Your task to perform on an android device: Show me popular games on the Play Store Image 0: 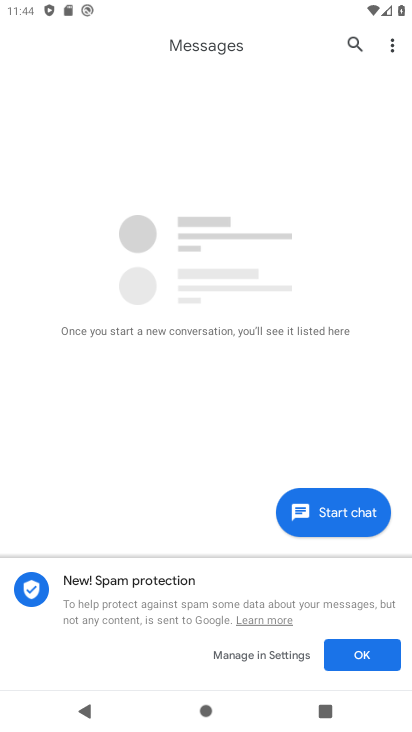
Step 0: press home button
Your task to perform on an android device: Show me popular games on the Play Store Image 1: 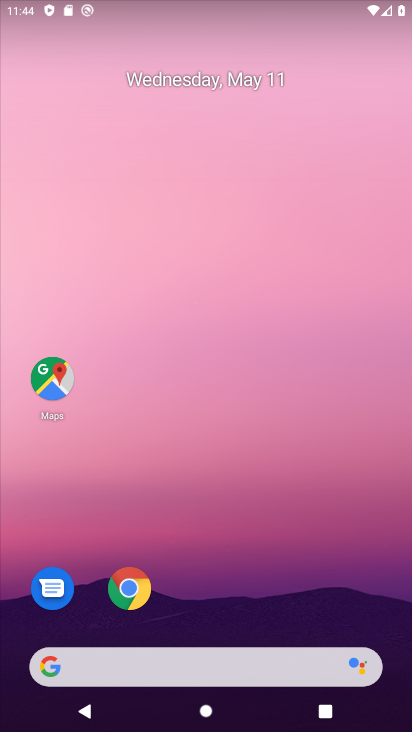
Step 1: drag from (182, 647) to (201, 123)
Your task to perform on an android device: Show me popular games on the Play Store Image 2: 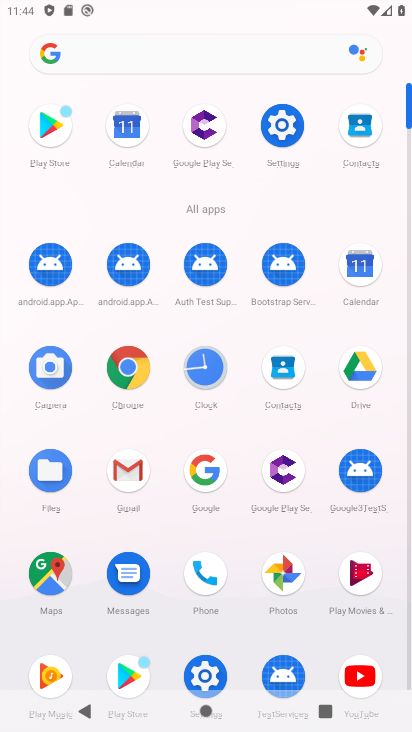
Step 2: click (132, 672)
Your task to perform on an android device: Show me popular games on the Play Store Image 3: 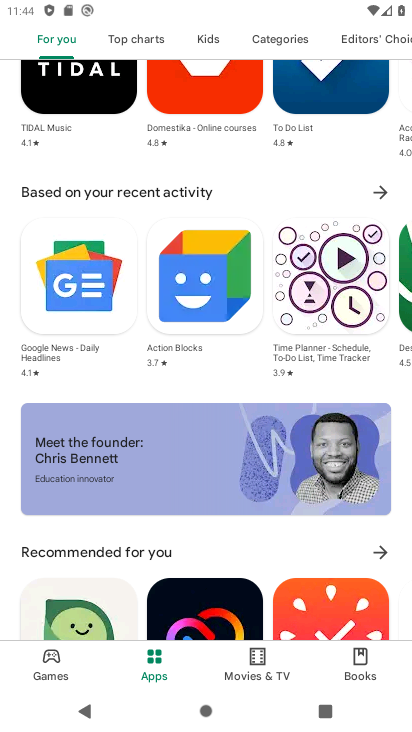
Step 3: drag from (128, 73) to (128, 444)
Your task to perform on an android device: Show me popular games on the Play Store Image 4: 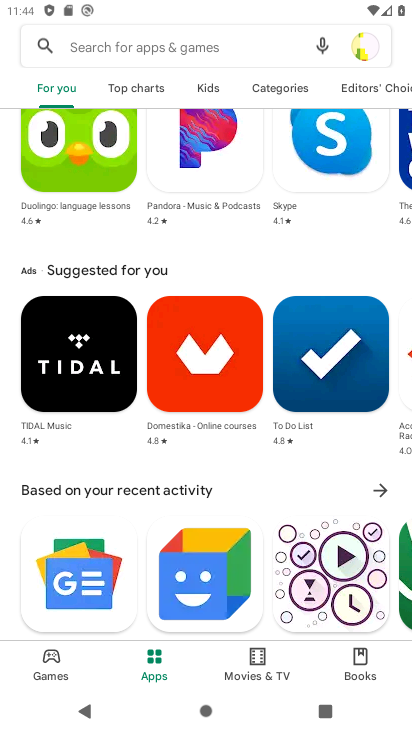
Step 4: click (136, 47)
Your task to perform on an android device: Show me popular games on the Play Store Image 5: 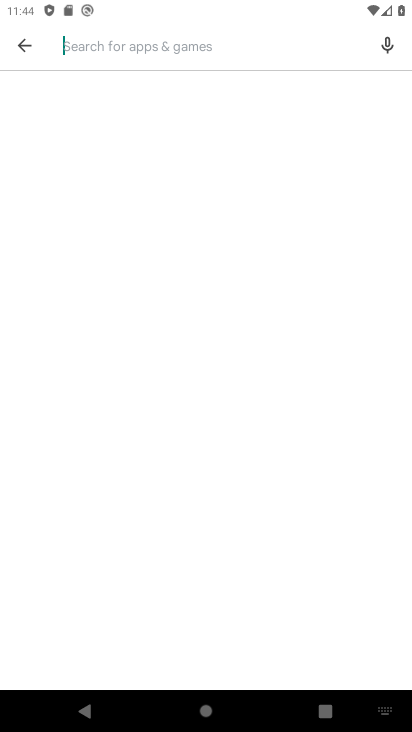
Step 5: type "popular games"
Your task to perform on an android device: Show me popular games on the Play Store Image 6: 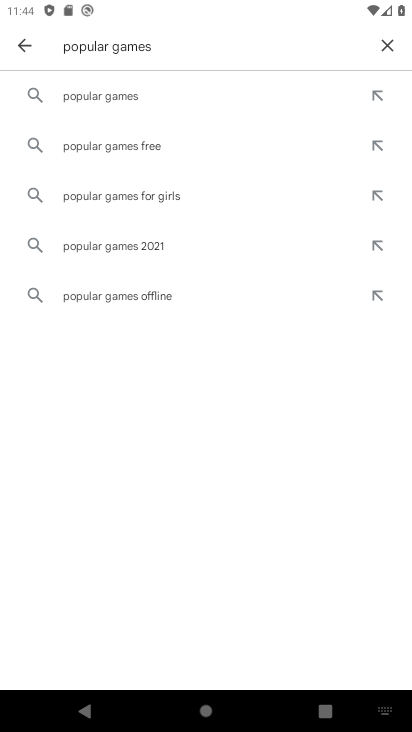
Step 6: click (123, 93)
Your task to perform on an android device: Show me popular games on the Play Store Image 7: 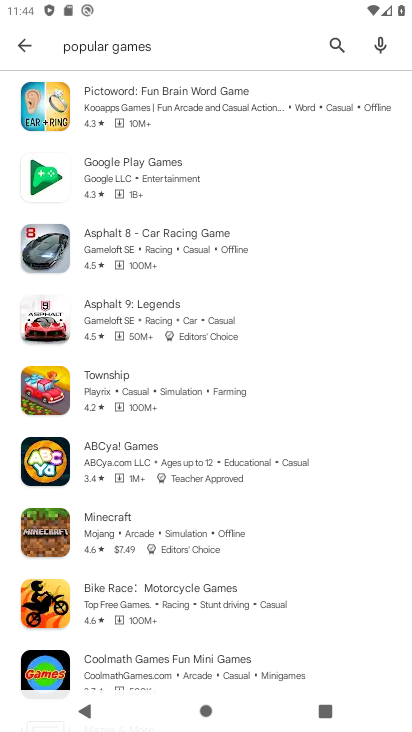
Step 7: task complete